Your task to perform on an android device: open app "Spotify" (install if not already installed) Image 0: 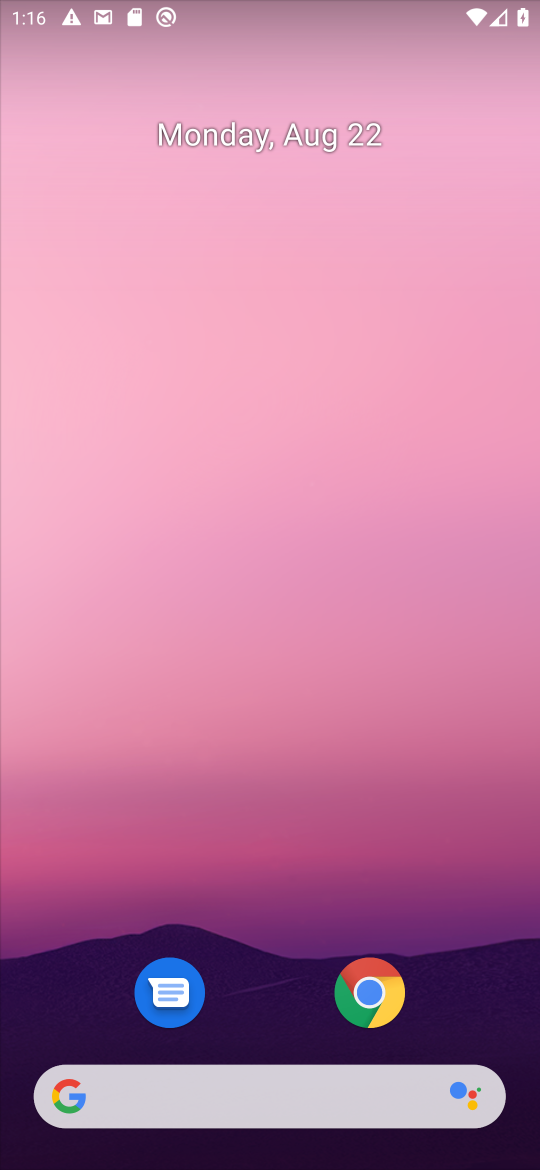
Step 0: drag from (221, 899) to (219, 318)
Your task to perform on an android device: open app "Spotify" (install if not already installed) Image 1: 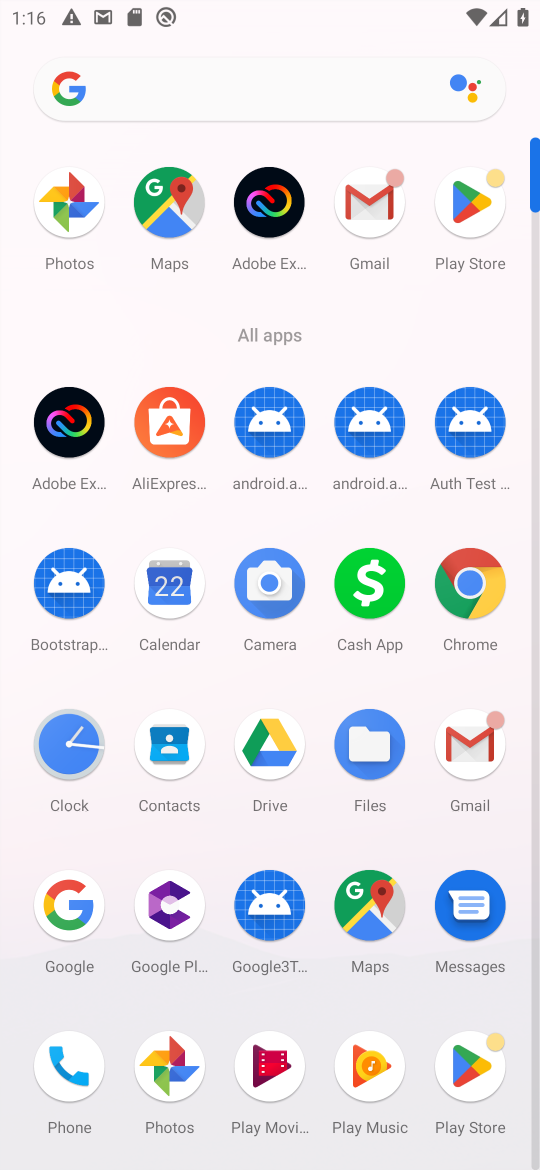
Step 1: click (468, 209)
Your task to perform on an android device: open app "Spotify" (install if not already installed) Image 2: 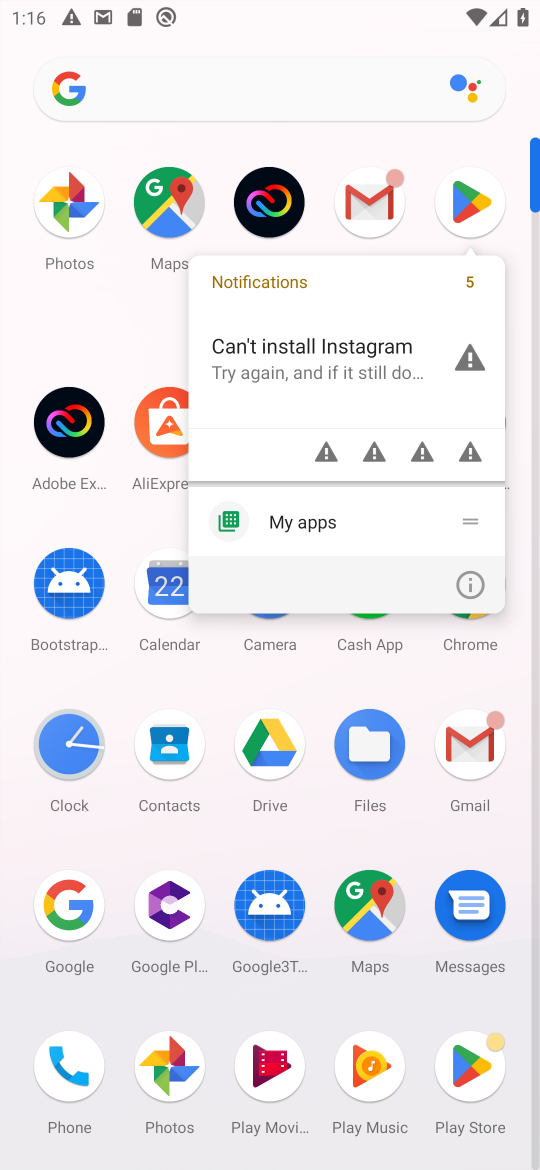
Step 2: click (455, 199)
Your task to perform on an android device: open app "Spotify" (install if not already installed) Image 3: 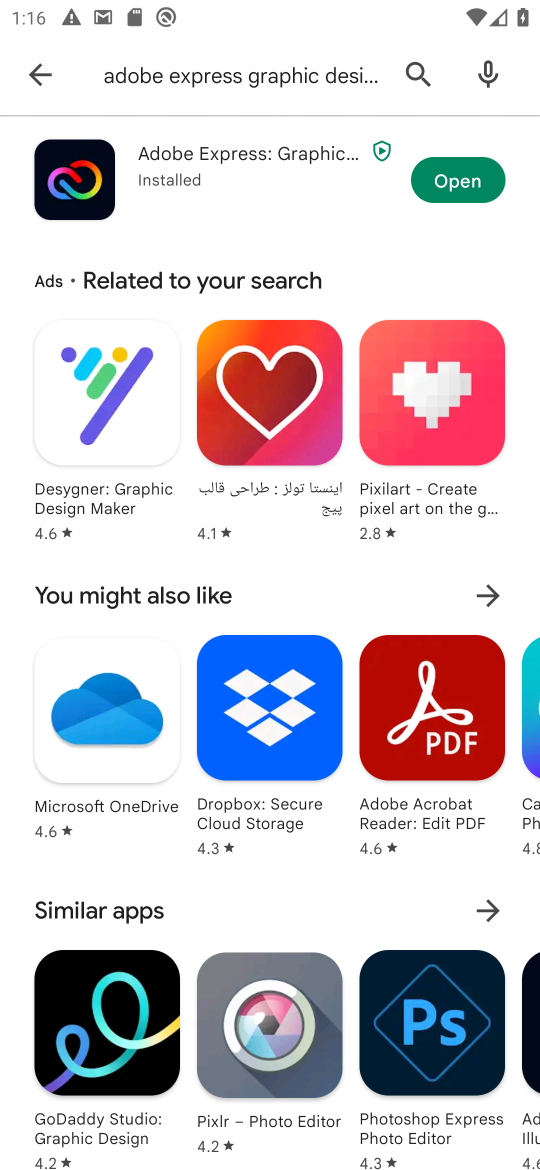
Step 3: click (416, 81)
Your task to perform on an android device: open app "Spotify" (install if not already installed) Image 4: 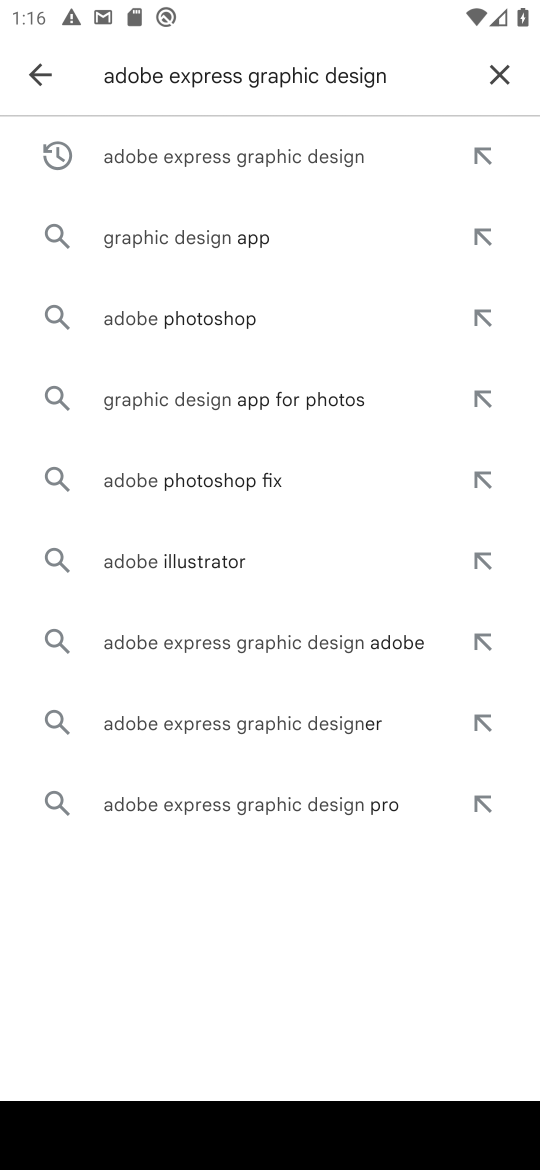
Step 4: click (494, 73)
Your task to perform on an android device: open app "Spotify" (install if not already installed) Image 5: 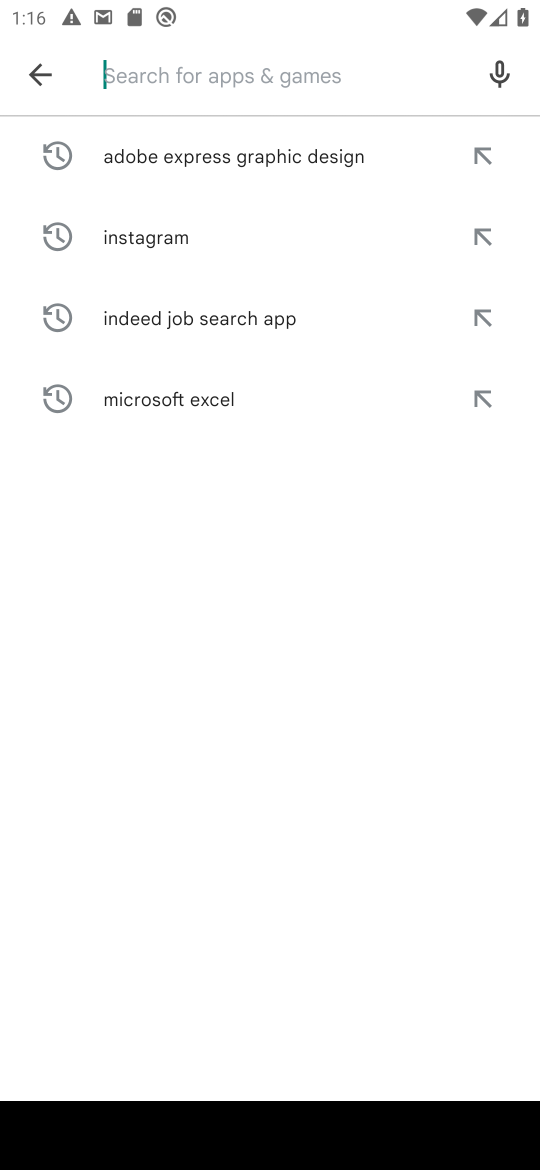
Step 5: type "Spotify"
Your task to perform on an android device: open app "Spotify" (install if not already installed) Image 6: 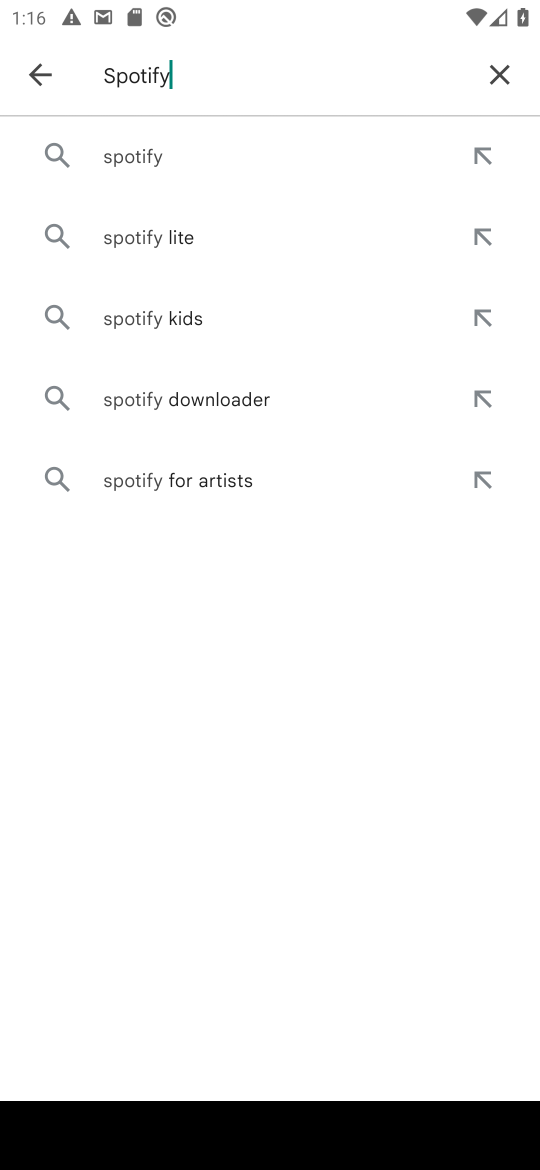
Step 6: click (143, 150)
Your task to perform on an android device: open app "Spotify" (install if not already installed) Image 7: 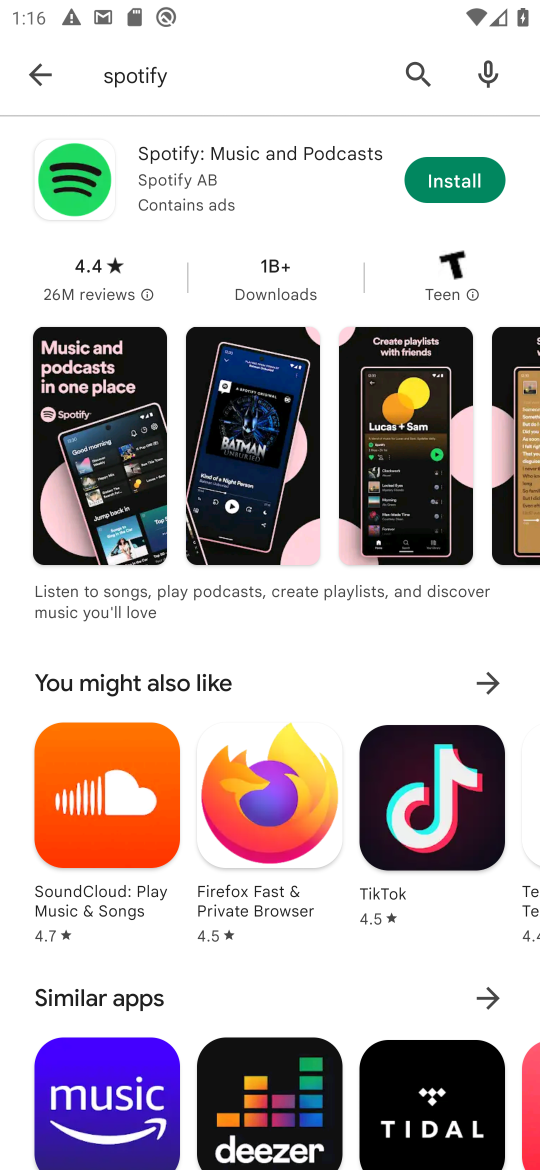
Step 7: click (452, 188)
Your task to perform on an android device: open app "Spotify" (install if not already installed) Image 8: 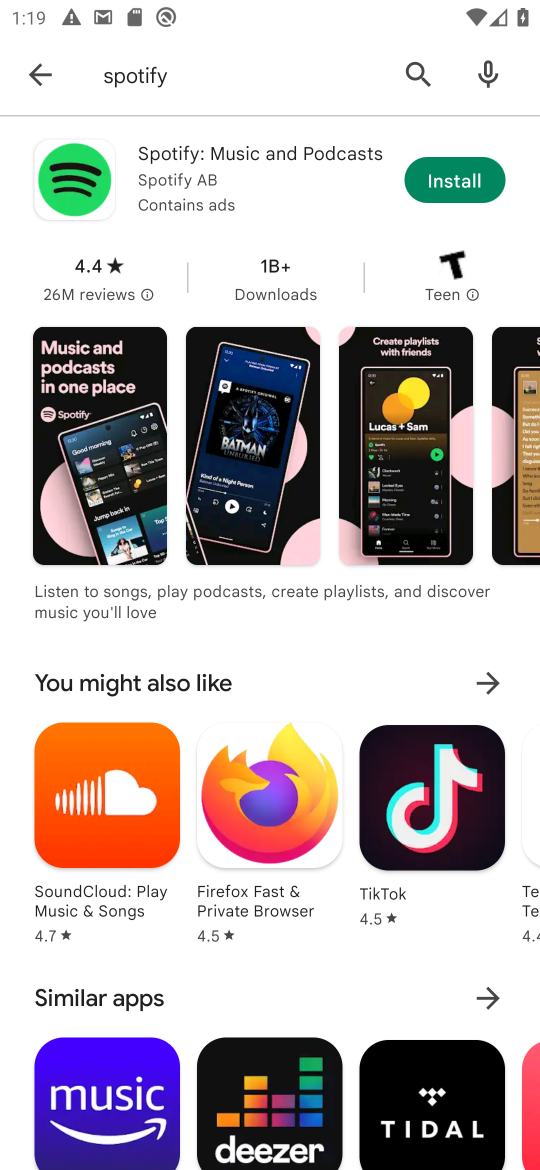
Step 8: task complete